Your task to perform on an android device: Show the shopping cart on amazon.com. Image 0: 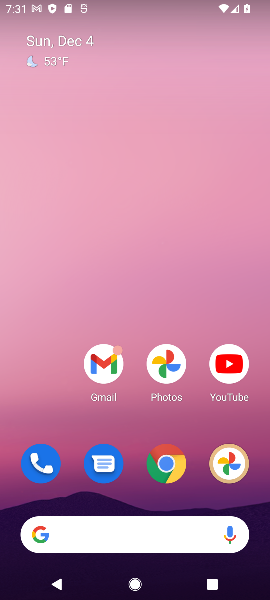
Step 0: click (100, 526)
Your task to perform on an android device: Show the shopping cart on amazon.com. Image 1: 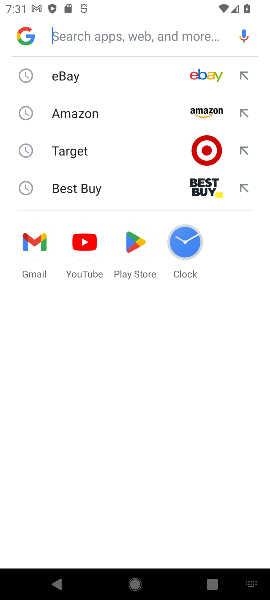
Step 1: type "amazon"
Your task to perform on an android device: Show the shopping cart on amazon.com. Image 2: 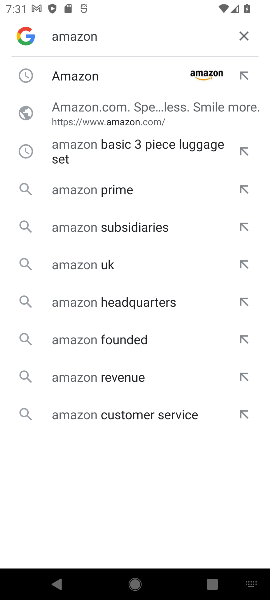
Step 2: click (111, 77)
Your task to perform on an android device: Show the shopping cart on amazon.com. Image 3: 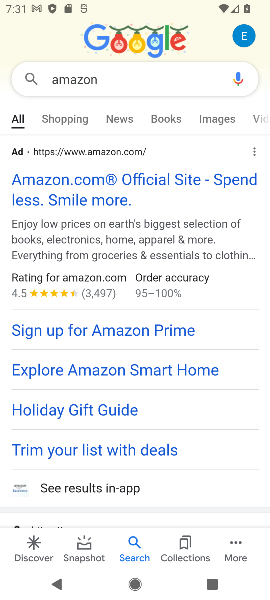
Step 3: click (35, 183)
Your task to perform on an android device: Show the shopping cart on amazon.com. Image 4: 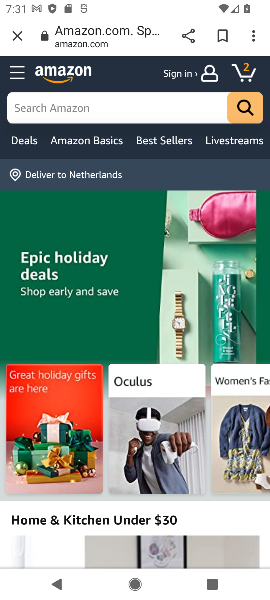
Step 4: task complete